Your task to perform on an android device: Open Google Image 0: 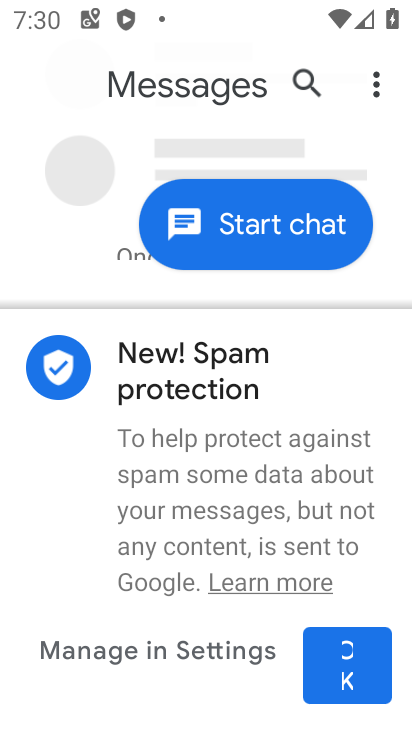
Step 0: press home button
Your task to perform on an android device: Open Google Image 1: 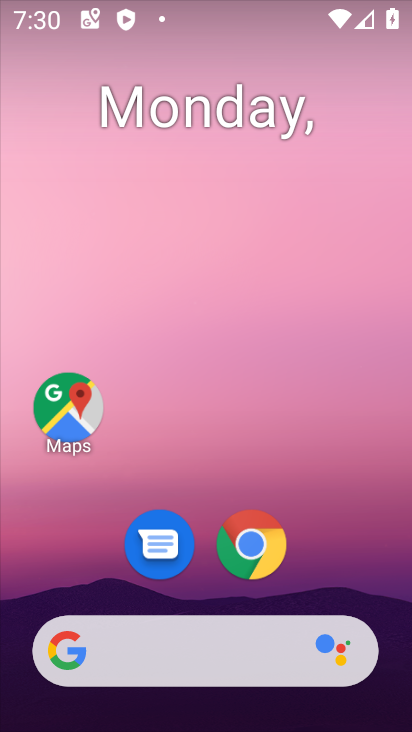
Step 1: click (71, 651)
Your task to perform on an android device: Open Google Image 2: 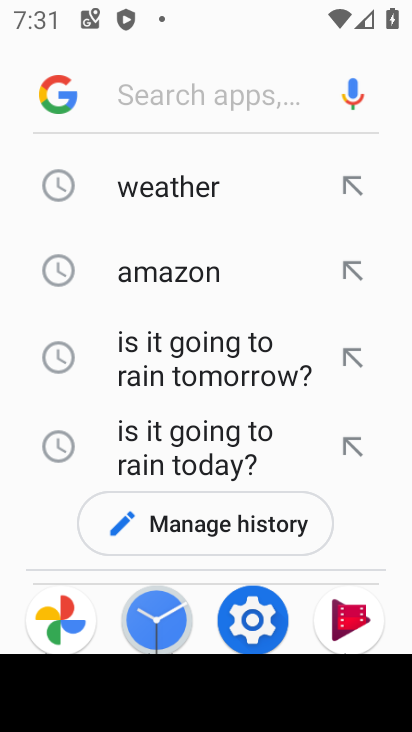
Step 2: click (62, 94)
Your task to perform on an android device: Open Google Image 3: 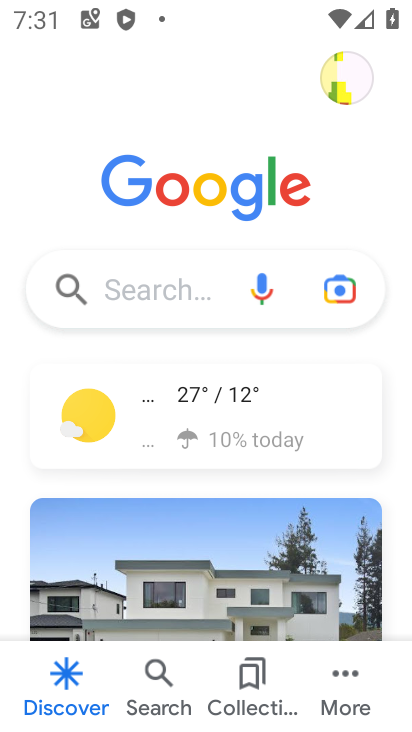
Step 3: task complete